Your task to perform on an android device: Open Android settings Image 0: 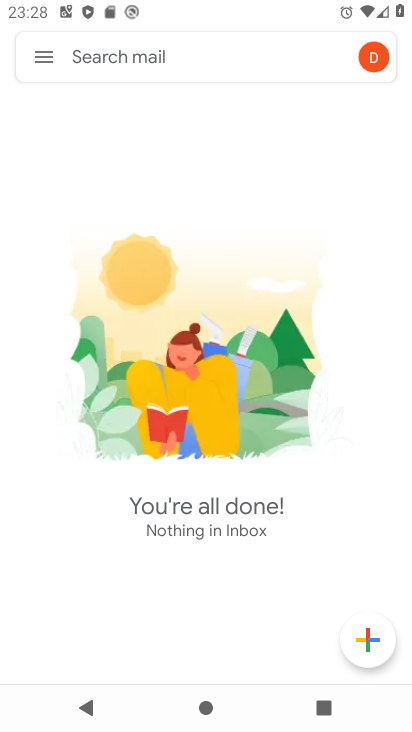
Step 0: press home button
Your task to perform on an android device: Open Android settings Image 1: 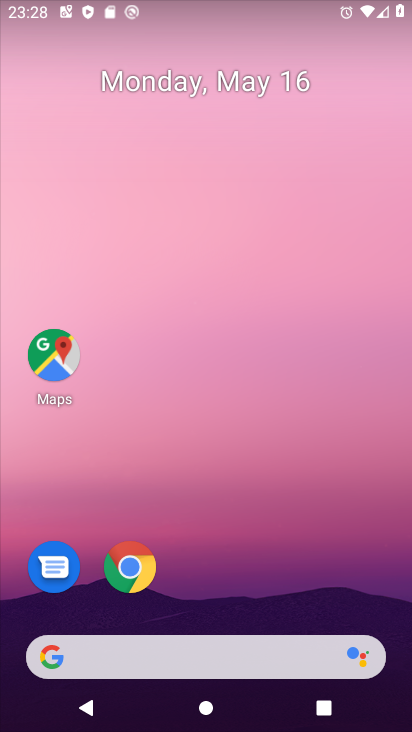
Step 1: drag from (300, 478) to (242, 124)
Your task to perform on an android device: Open Android settings Image 2: 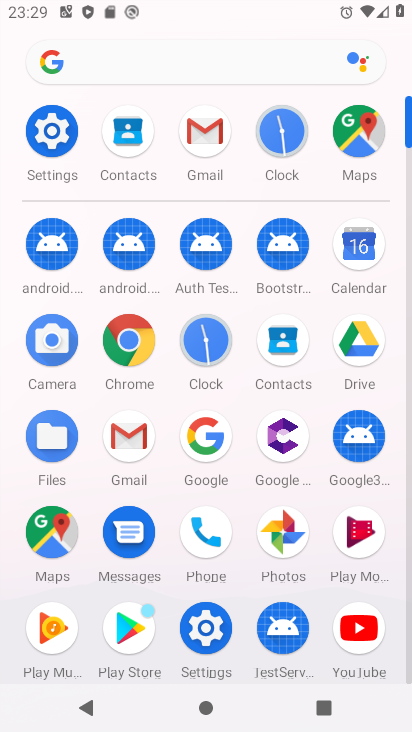
Step 2: click (51, 126)
Your task to perform on an android device: Open Android settings Image 3: 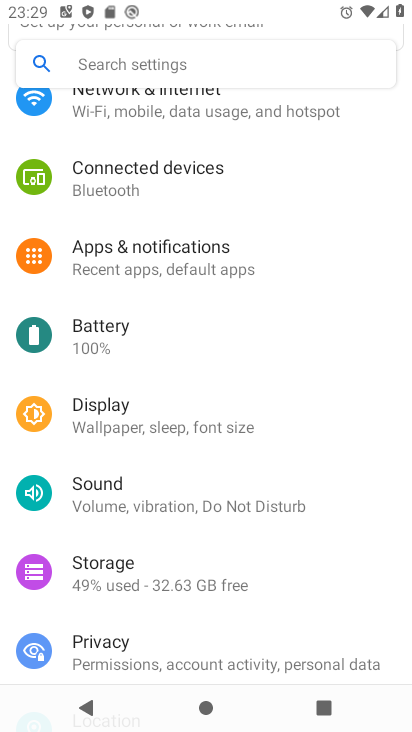
Step 3: task complete